Your task to perform on an android device: Open privacy settings Image 0: 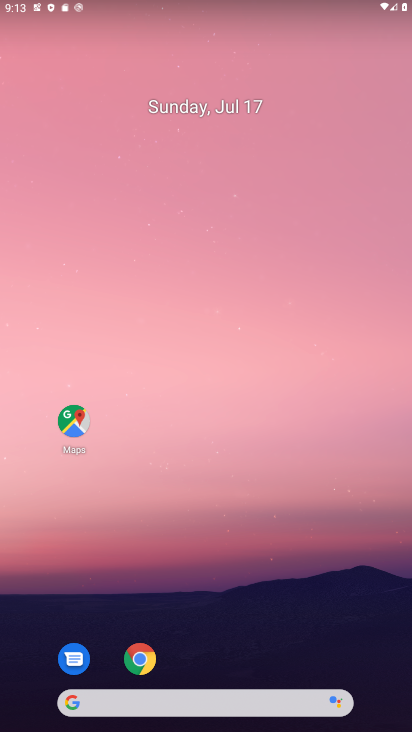
Step 0: drag from (217, 664) to (236, 194)
Your task to perform on an android device: Open privacy settings Image 1: 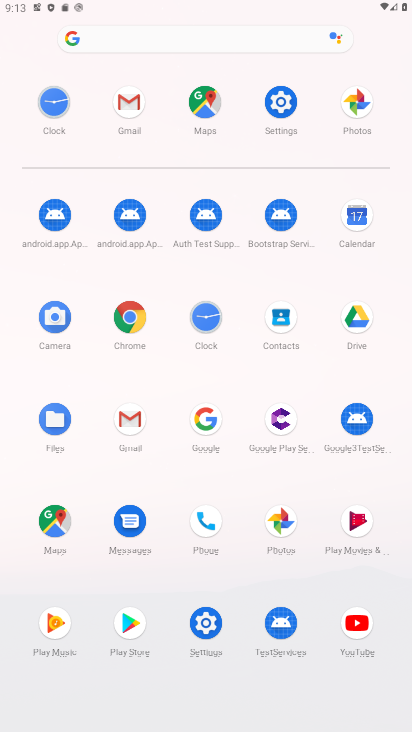
Step 1: click (279, 106)
Your task to perform on an android device: Open privacy settings Image 2: 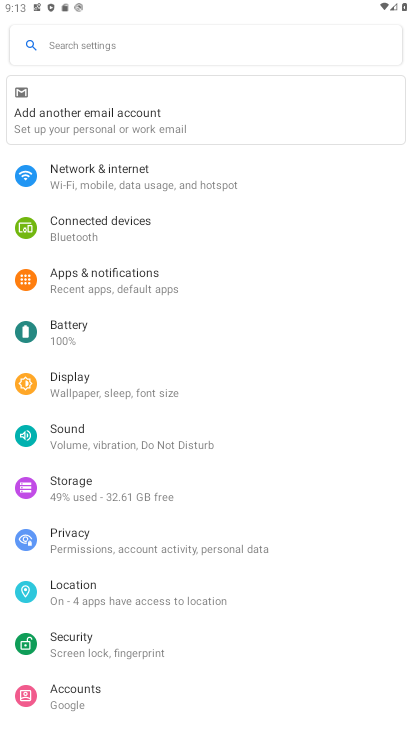
Step 2: click (139, 554)
Your task to perform on an android device: Open privacy settings Image 3: 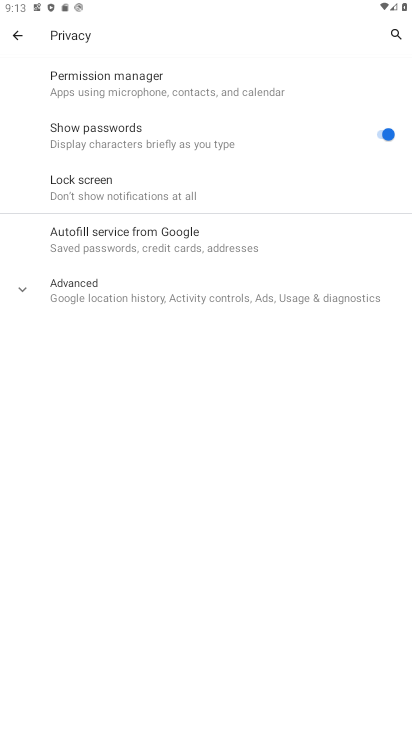
Step 3: task complete